Your task to perform on an android device: Go to Google Image 0: 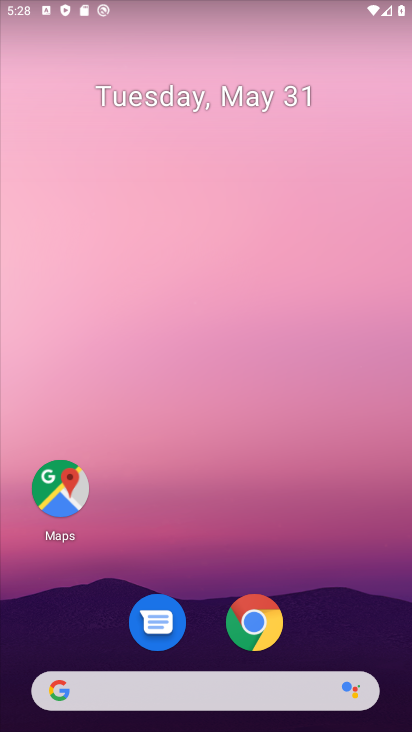
Step 0: drag from (221, 706) to (256, 7)
Your task to perform on an android device: Go to Google Image 1: 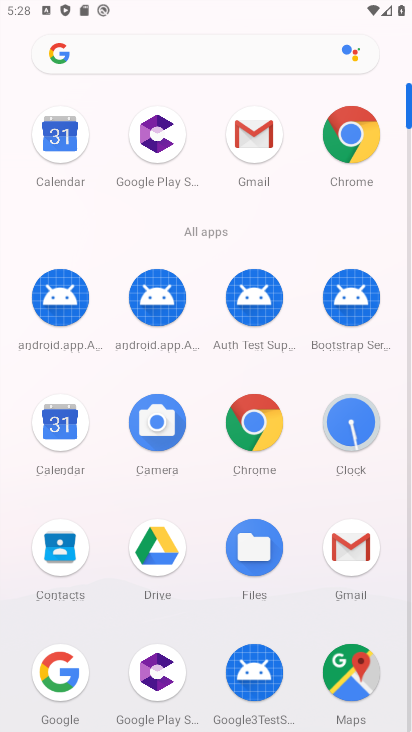
Step 1: click (66, 682)
Your task to perform on an android device: Go to Google Image 2: 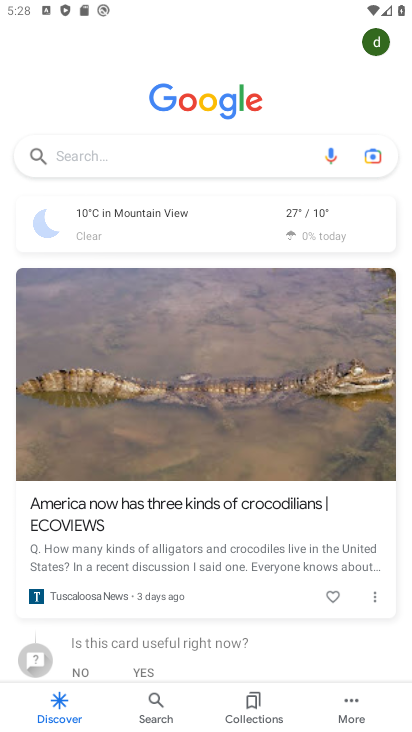
Step 2: task complete